Your task to perform on an android device: turn notification dots on Image 0: 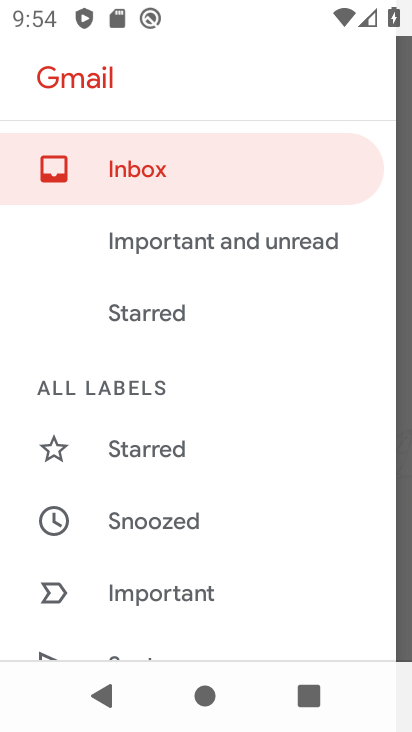
Step 0: press home button
Your task to perform on an android device: turn notification dots on Image 1: 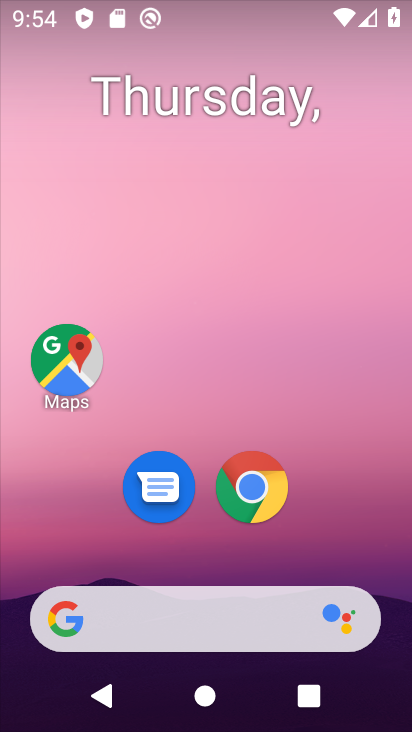
Step 1: drag from (316, 554) to (54, 153)
Your task to perform on an android device: turn notification dots on Image 2: 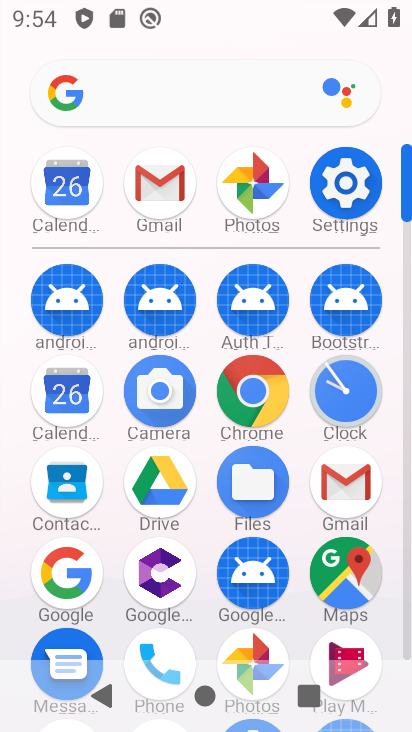
Step 2: click (350, 199)
Your task to perform on an android device: turn notification dots on Image 3: 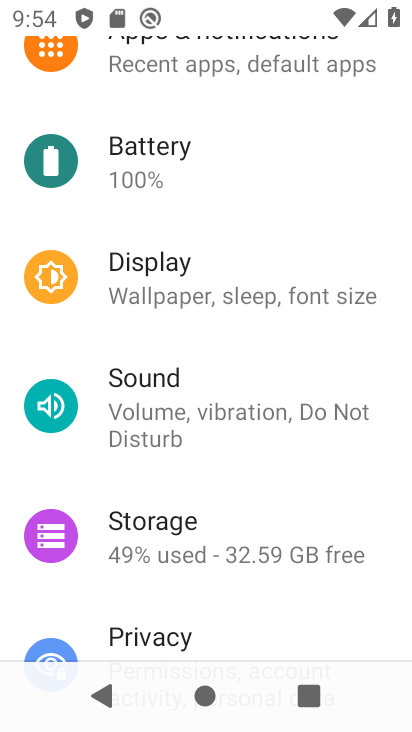
Step 3: click (227, 63)
Your task to perform on an android device: turn notification dots on Image 4: 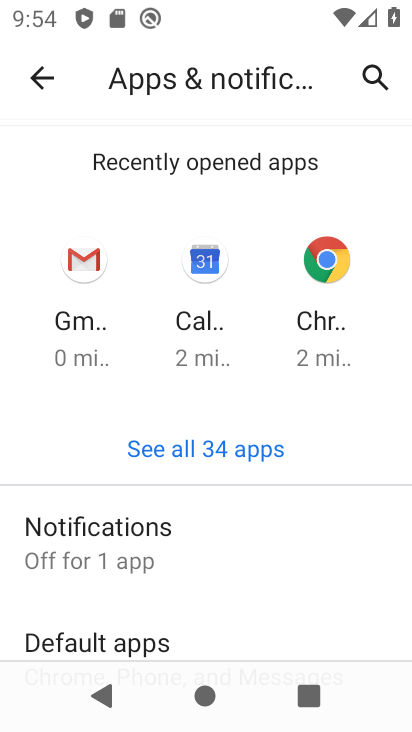
Step 4: click (109, 542)
Your task to perform on an android device: turn notification dots on Image 5: 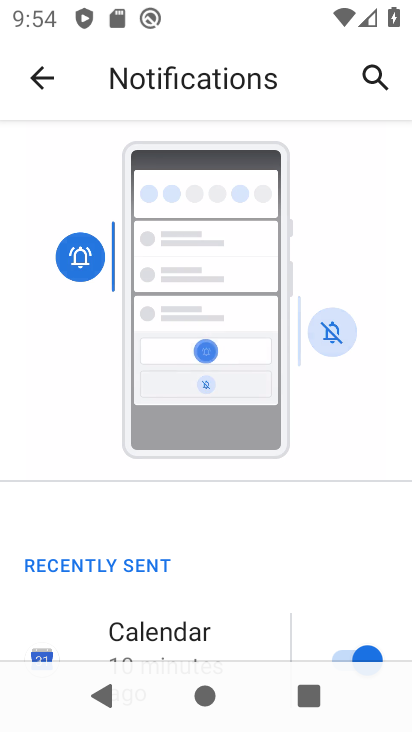
Step 5: drag from (132, 583) to (127, 137)
Your task to perform on an android device: turn notification dots on Image 6: 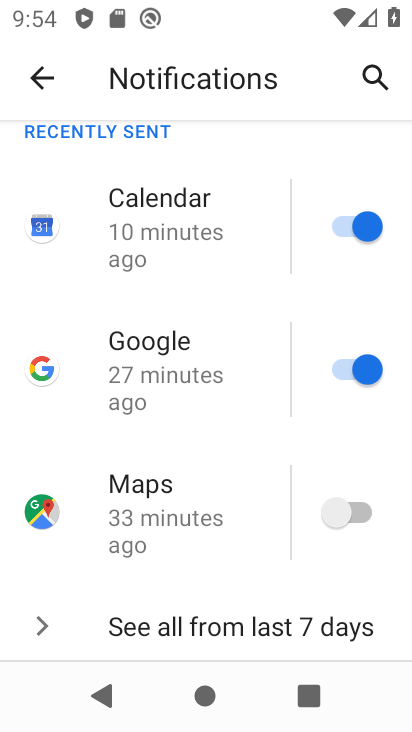
Step 6: drag from (166, 552) to (152, 251)
Your task to perform on an android device: turn notification dots on Image 7: 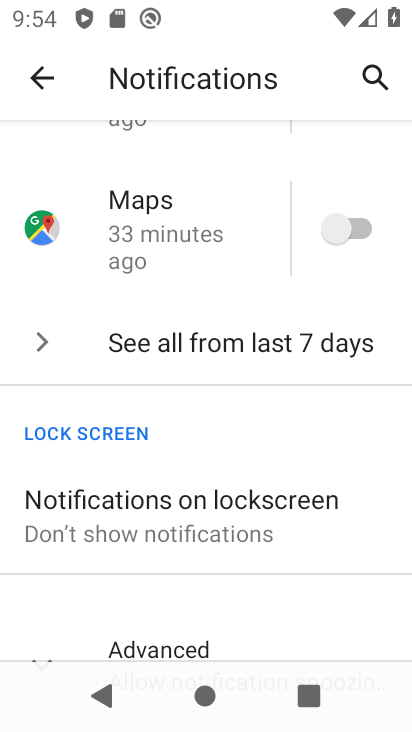
Step 7: drag from (189, 615) to (156, 334)
Your task to perform on an android device: turn notification dots on Image 8: 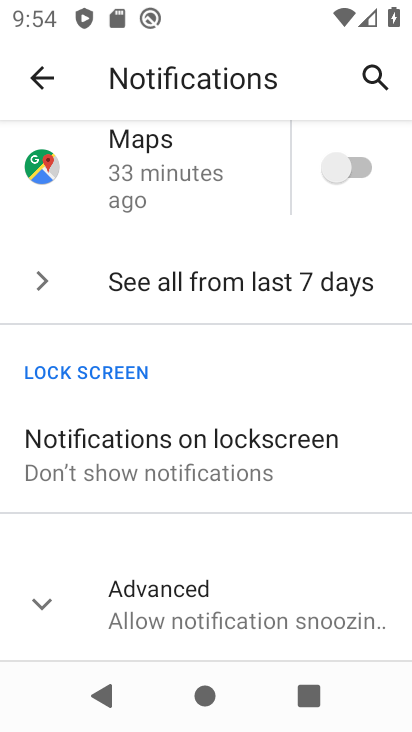
Step 8: click (158, 598)
Your task to perform on an android device: turn notification dots on Image 9: 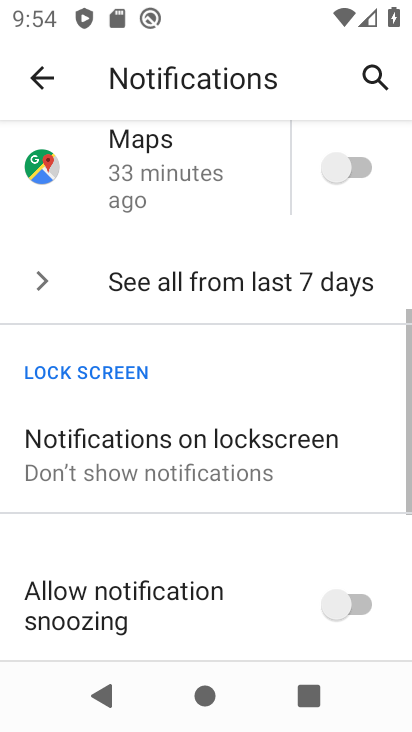
Step 9: drag from (158, 598) to (146, 172)
Your task to perform on an android device: turn notification dots on Image 10: 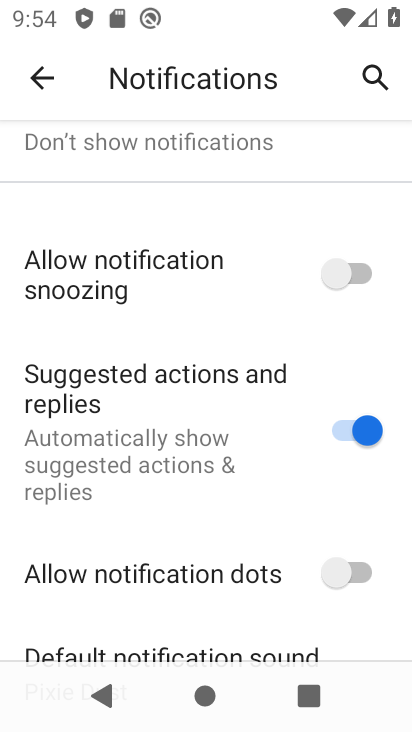
Step 10: click (342, 579)
Your task to perform on an android device: turn notification dots on Image 11: 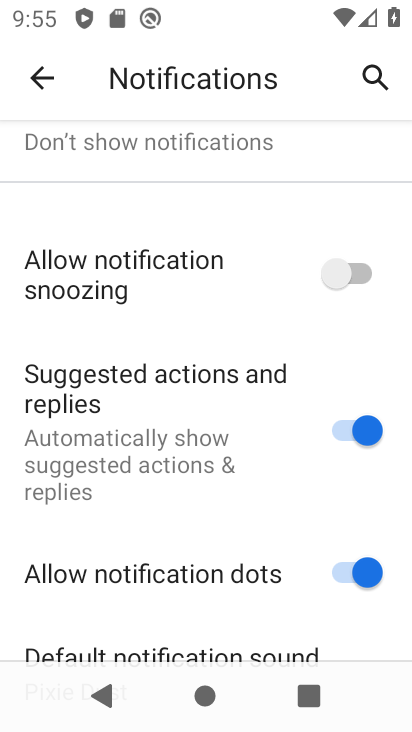
Step 11: task complete